Your task to perform on an android device: turn on priority inbox in the gmail app Image 0: 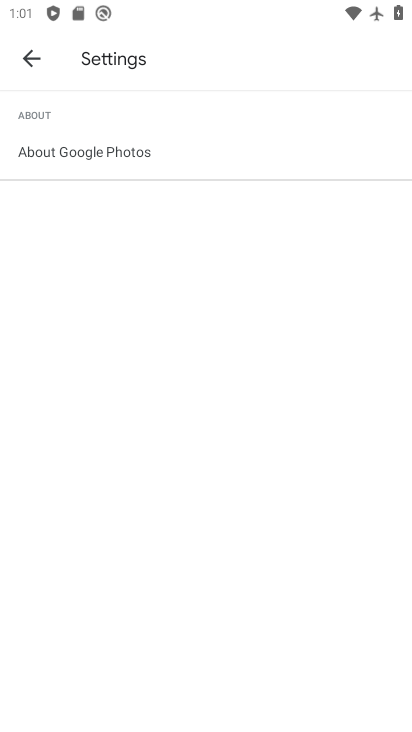
Step 0: press home button
Your task to perform on an android device: turn on priority inbox in the gmail app Image 1: 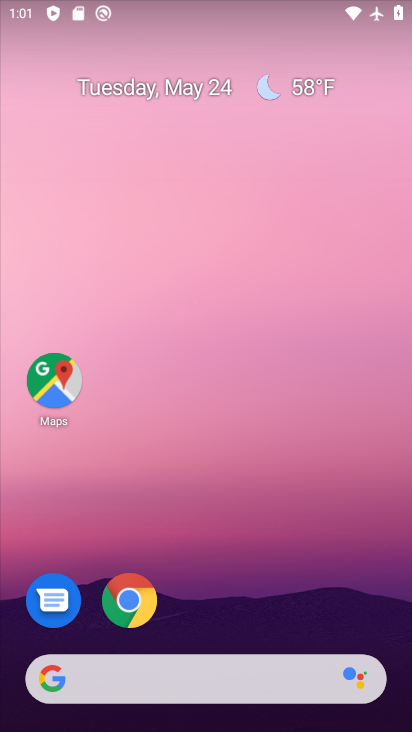
Step 1: drag from (276, 600) to (215, 31)
Your task to perform on an android device: turn on priority inbox in the gmail app Image 2: 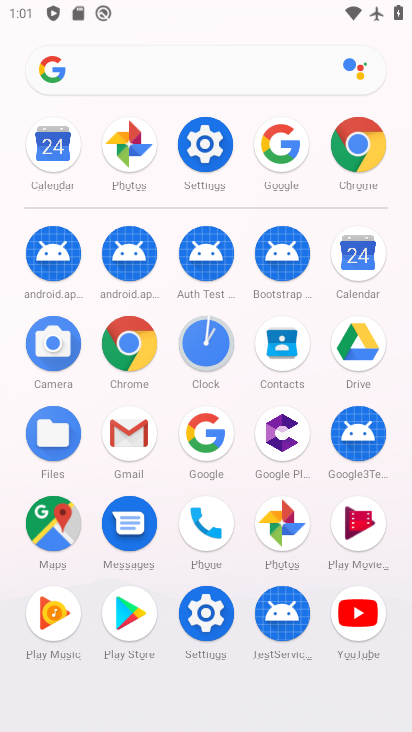
Step 2: click (129, 442)
Your task to perform on an android device: turn on priority inbox in the gmail app Image 3: 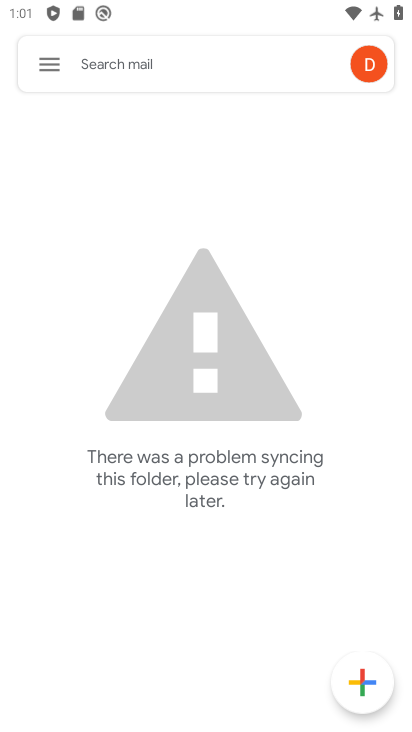
Step 3: click (50, 64)
Your task to perform on an android device: turn on priority inbox in the gmail app Image 4: 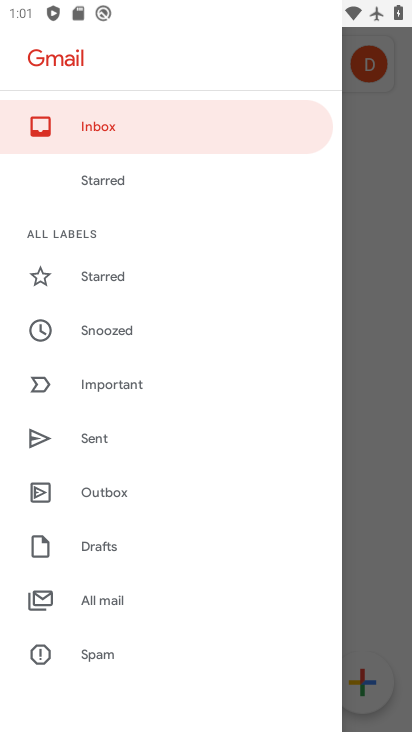
Step 4: drag from (220, 665) to (231, 156)
Your task to perform on an android device: turn on priority inbox in the gmail app Image 5: 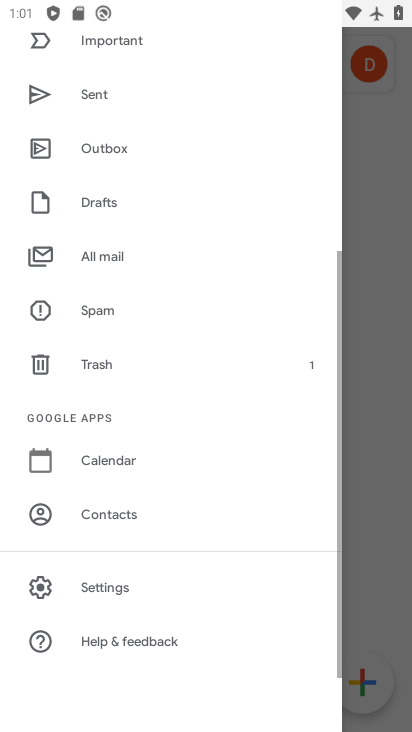
Step 5: click (176, 575)
Your task to perform on an android device: turn on priority inbox in the gmail app Image 6: 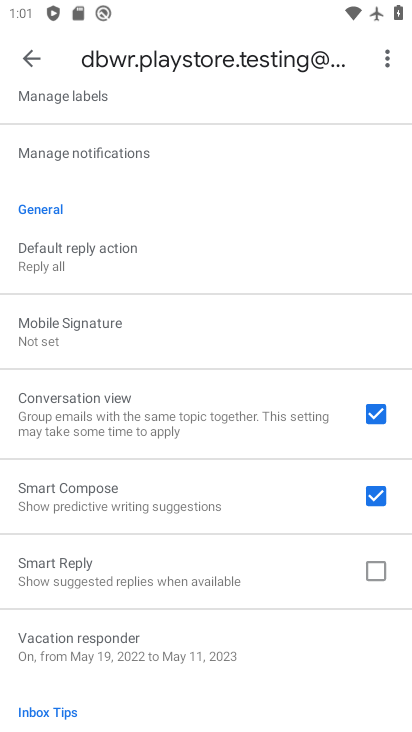
Step 6: drag from (182, 209) to (198, 731)
Your task to perform on an android device: turn on priority inbox in the gmail app Image 7: 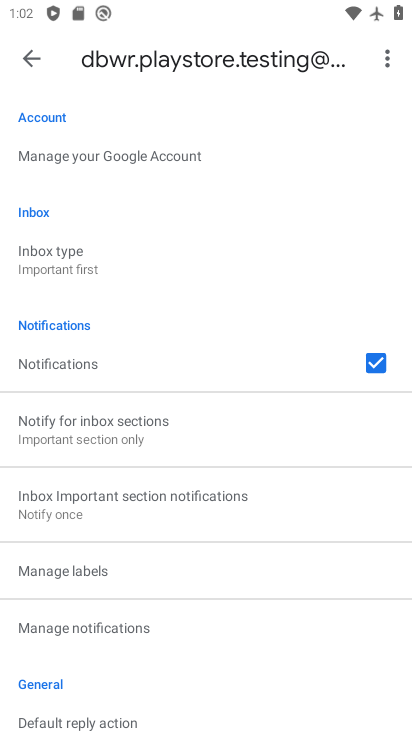
Step 7: click (129, 263)
Your task to perform on an android device: turn on priority inbox in the gmail app Image 8: 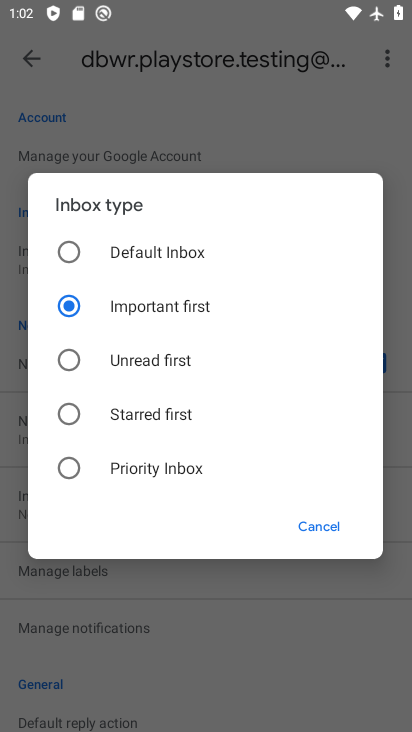
Step 8: click (157, 463)
Your task to perform on an android device: turn on priority inbox in the gmail app Image 9: 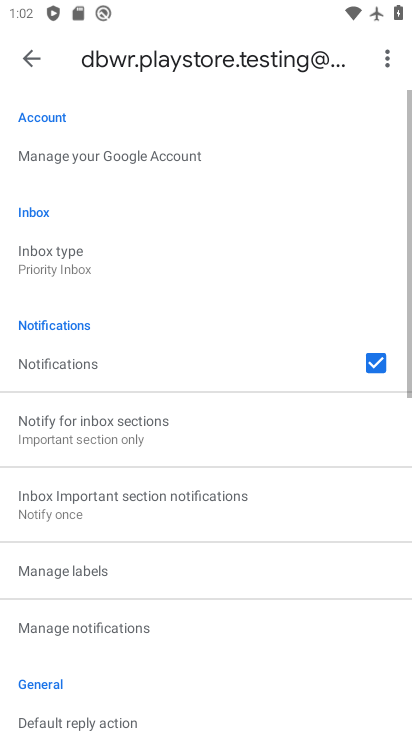
Step 9: task complete